Your task to perform on an android device: Go to sound settings Image 0: 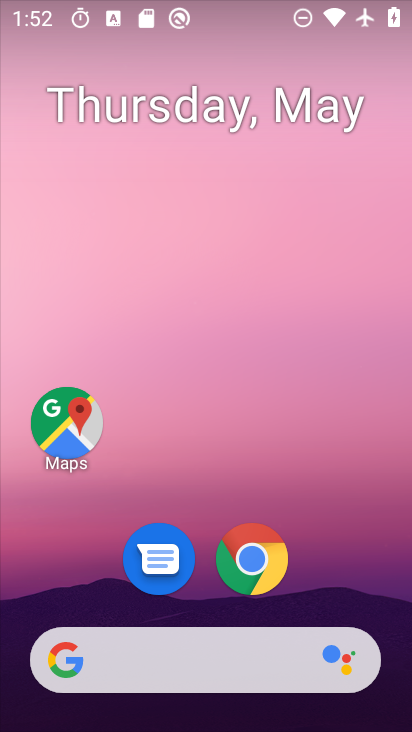
Step 0: drag from (169, 636) to (266, 229)
Your task to perform on an android device: Go to sound settings Image 1: 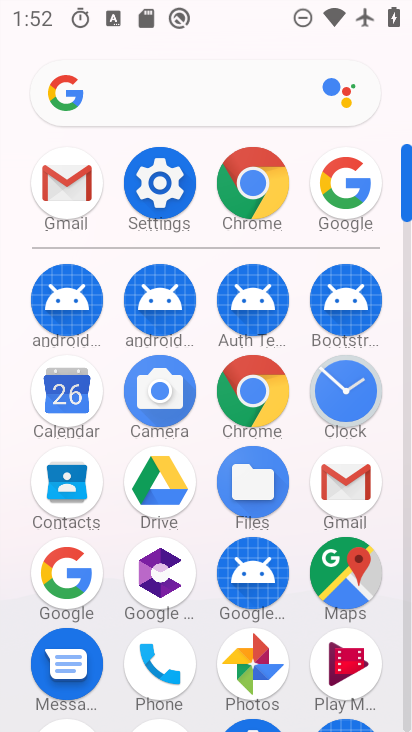
Step 1: click (174, 196)
Your task to perform on an android device: Go to sound settings Image 2: 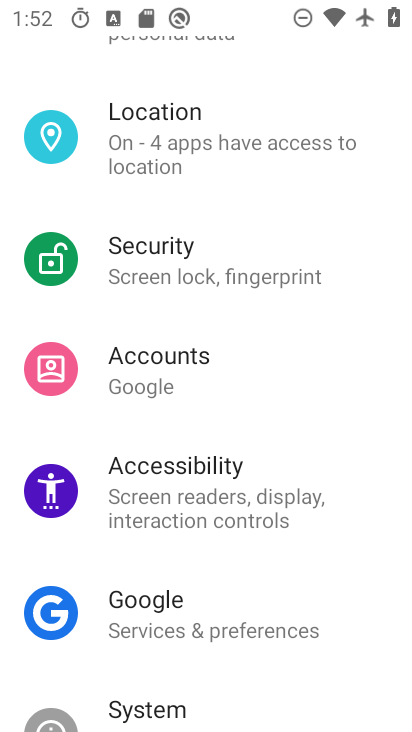
Step 2: drag from (197, 301) to (136, 621)
Your task to perform on an android device: Go to sound settings Image 3: 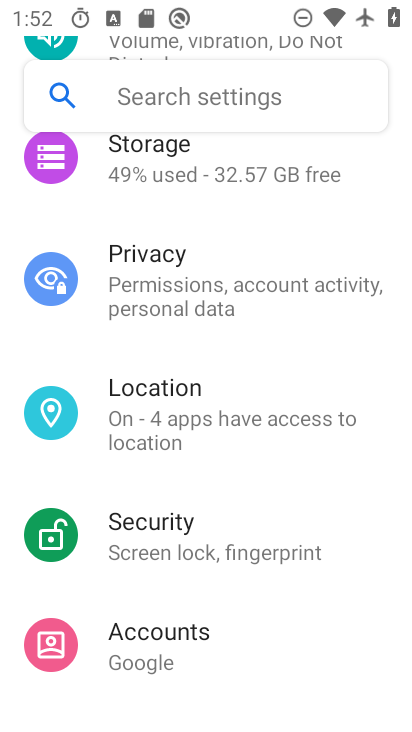
Step 3: drag from (177, 283) to (144, 692)
Your task to perform on an android device: Go to sound settings Image 4: 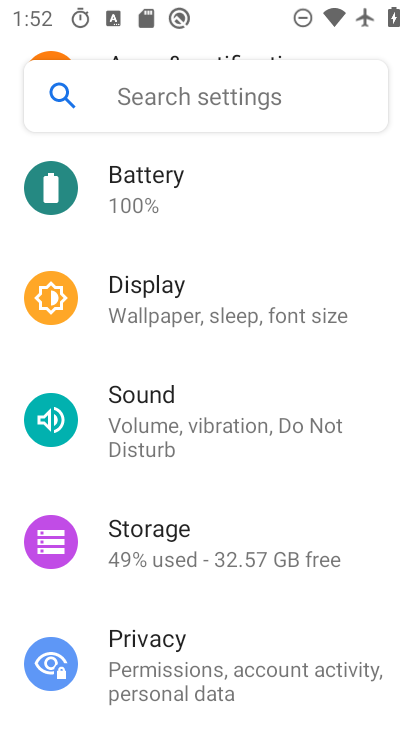
Step 4: click (237, 422)
Your task to perform on an android device: Go to sound settings Image 5: 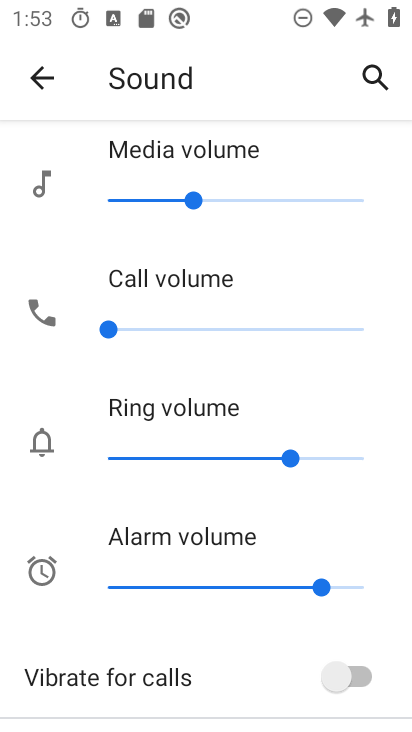
Step 5: task complete